Your task to perform on an android device: turn on showing notifications on the lock screen Image 0: 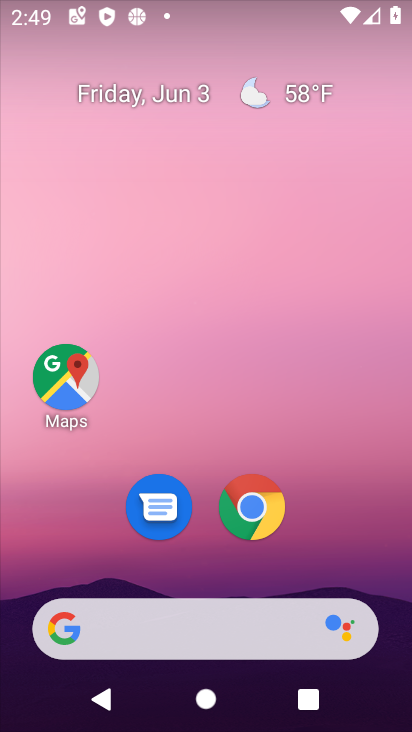
Step 0: drag from (328, 523) to (192, 45)
Your task to perform on an android device: turn on showing notifications on the lock screen Image 1: 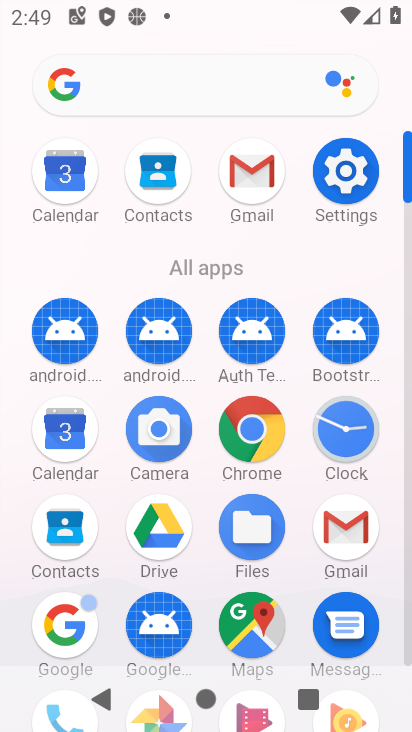
Step 1: click (347, 168)
Your task to perform on an android device: turn on showing notifications on the lock screen Image 2: 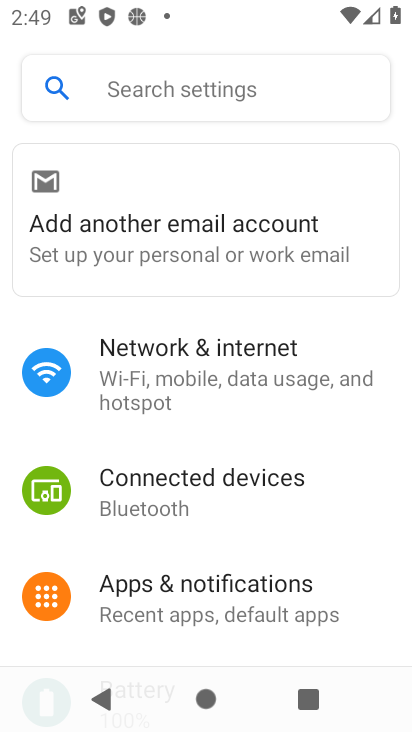
Step 2: click (232, 588)
Your task to perform on an android device: turn on showing notifications on the lock screen Image 3: 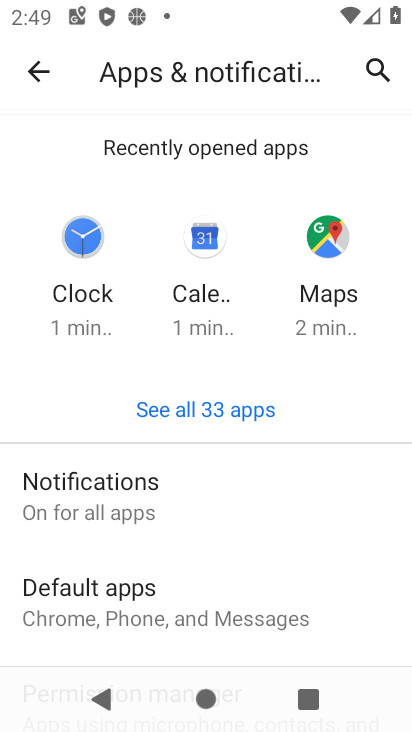
Step 3: click (105, 484)
Your task to perform on an android device: turn on showing notifications on the lock screen Image 4: 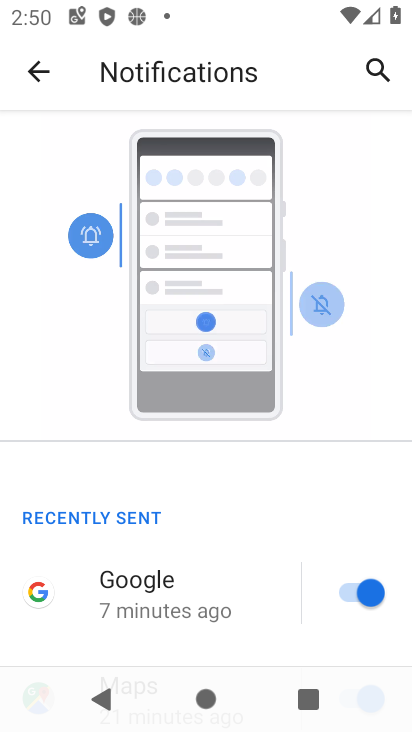
Step 4: drag from (205, 495) to (274, 343)
Your task to perform on an android device: turn on showing notifications on the lock screen Image 5: 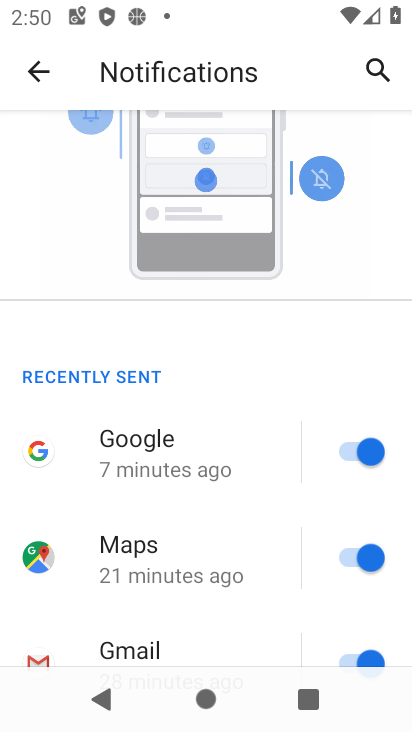
Step 5: drag from (141, 510) to (245, 380)
Your task to perform on an android device: turn on showing notifications on the lock screen Image 6: 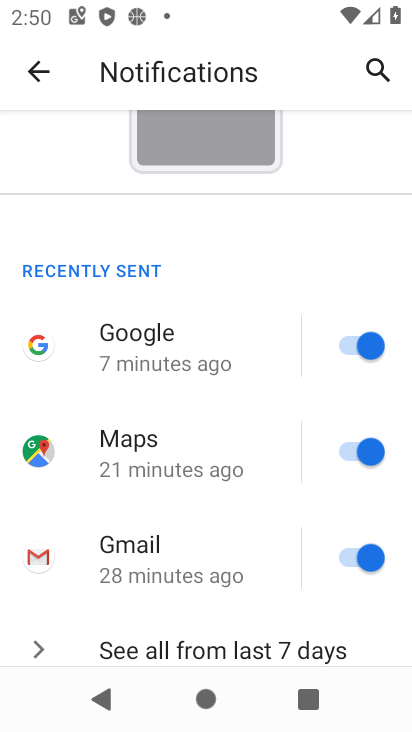
Step 6: drag from (142, 506) to (263, 363)
Your task to perform on an android device: turn on showing notifications on the lock screen Image 7: 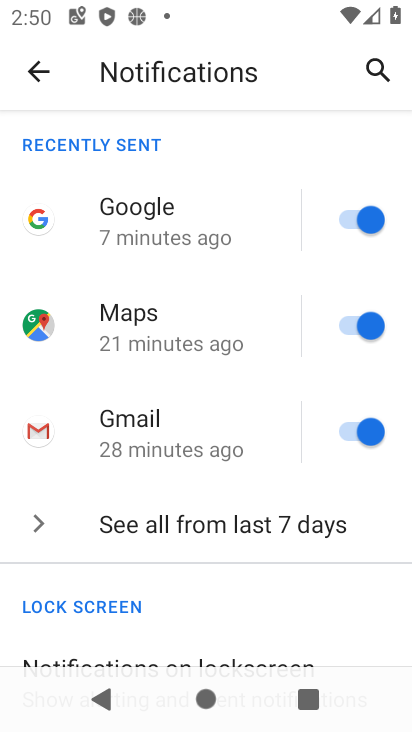
Step 7: drag from (142, 481) to (247, 358)
Your task to perform on an android device: turn on showing notifications on the lock screen Image 8: 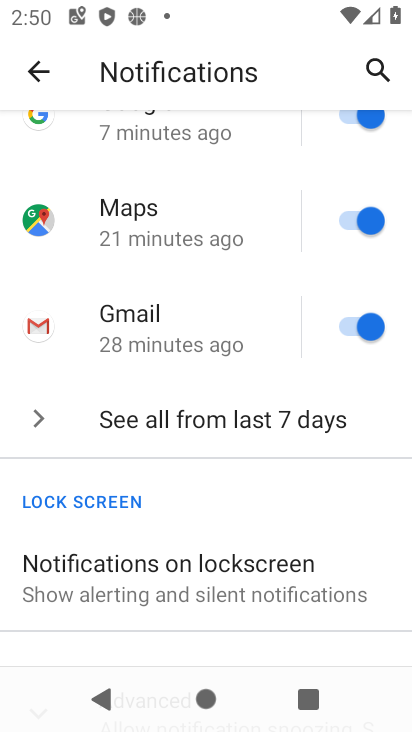
Step 8: click (163, 560)
Your task to perform on an android device: turn on showing notifications on the lock screen Image 9: 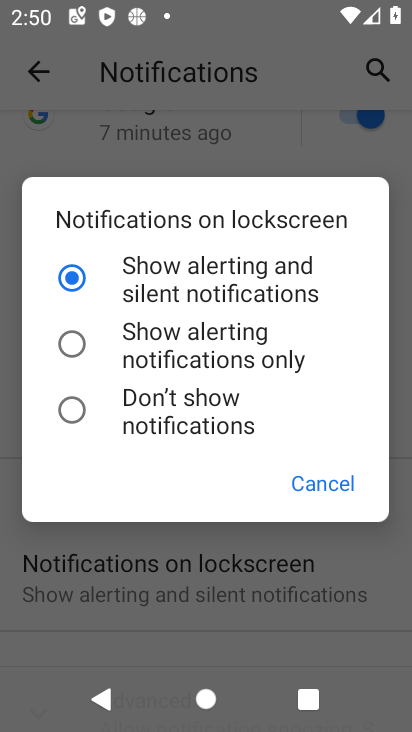
Step 9: click (78, 276)
Your task to perform on an android device: turn on showing notifications on the lock screen Image 10: 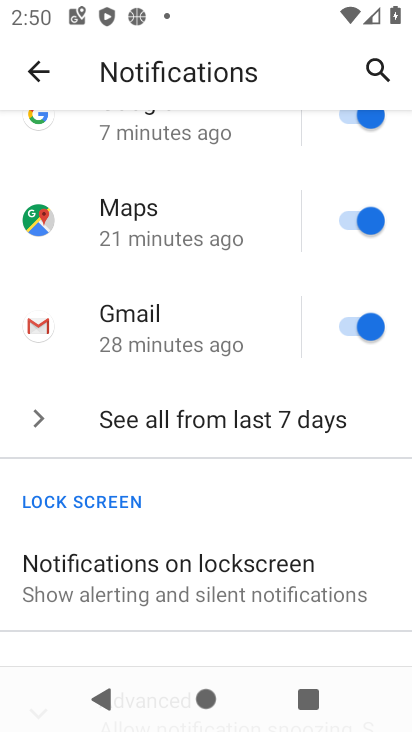
Step 10: task complete